Your task to perform on an android device: Open calendar and show me the third week of next month Image 0: 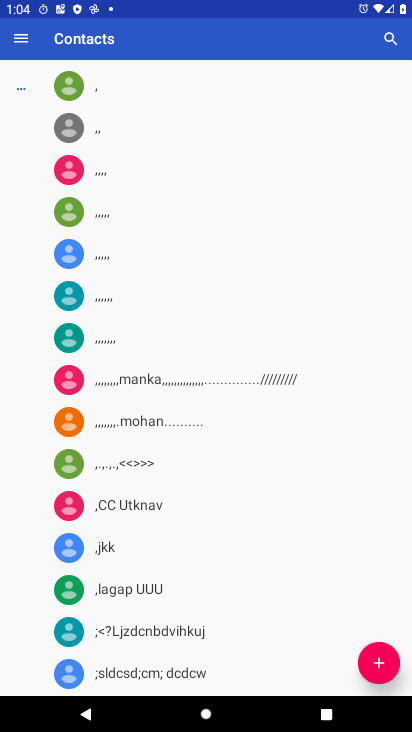
Step 0: press home button
Your task to perform on an android device: Open calendar and show me the third week of next month Image 1: 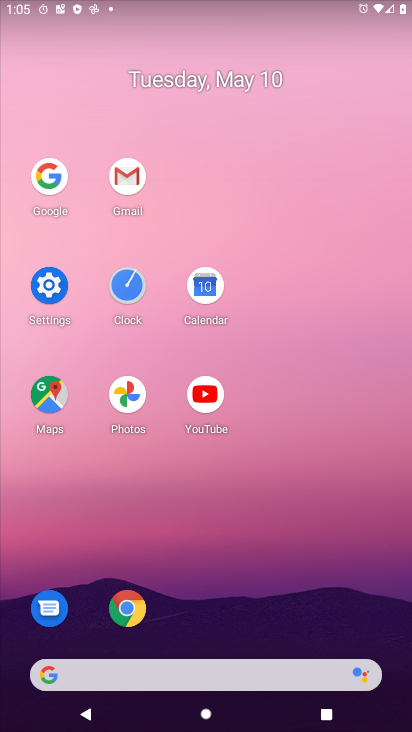
Step 1: click (196, 280)
Your task to perform on an android device: Open calendar and show me the third week of next month Image 2: 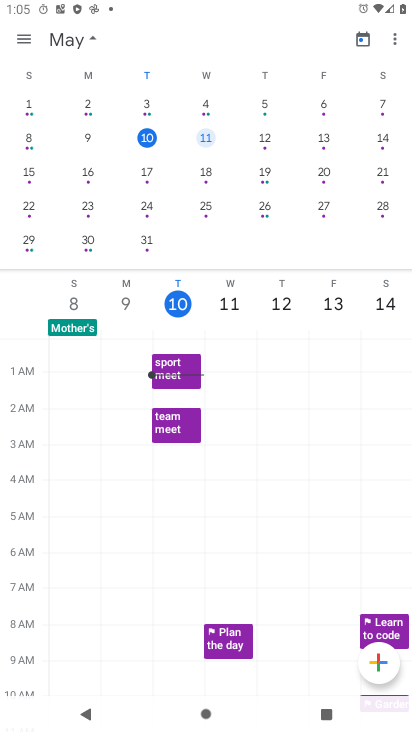
Step 2: click (78, 35)
Your task to perform on an android device: Open calendar and show me the third week of next month Image 3: 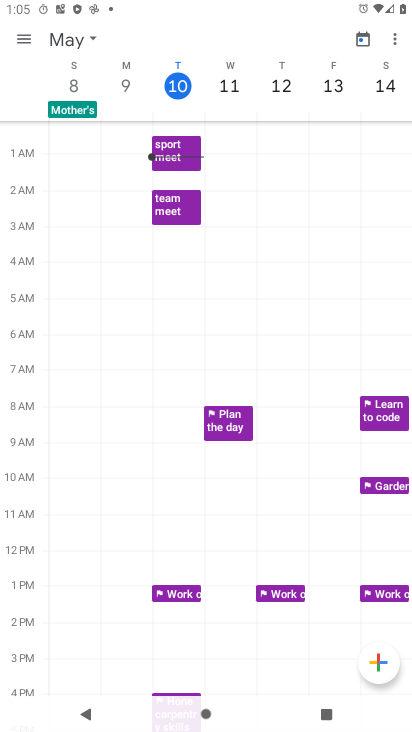
Step 3: click (87, 37)
Your task to perform on an android device: Open calendar and show me the third week of next month Image 4: 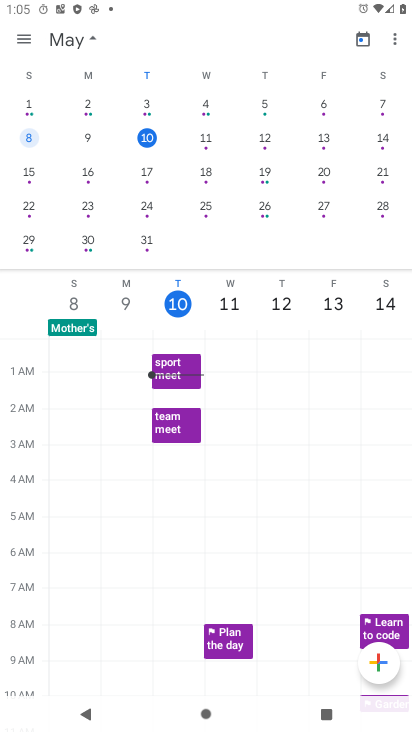
Step 4: drag from (352, 158) to (11, 196)
Your task to perform on an android device: Open calendar and show me the third week of next month Image 5: 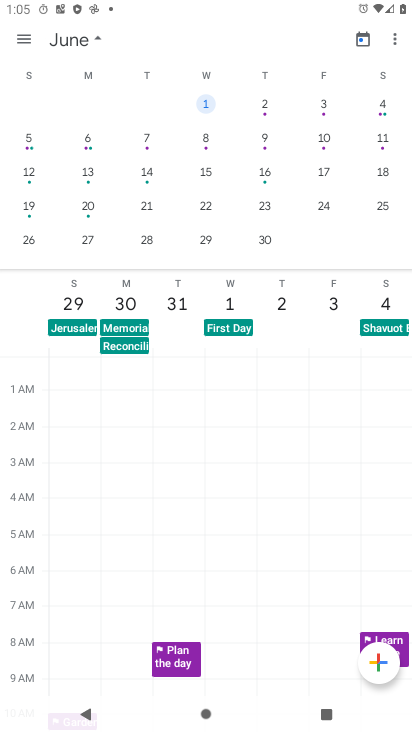
Step 5: click (29, 35)
Your task to perform on an android device: Open calendar and show me the third week of next month Image 6: 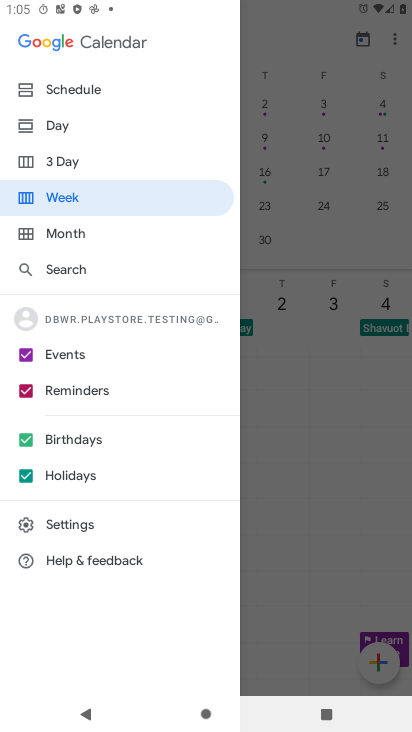
Step 6: click (81, 195)
Your task to perform on an android device: Open calendar and show me the third week of next month Image 7: 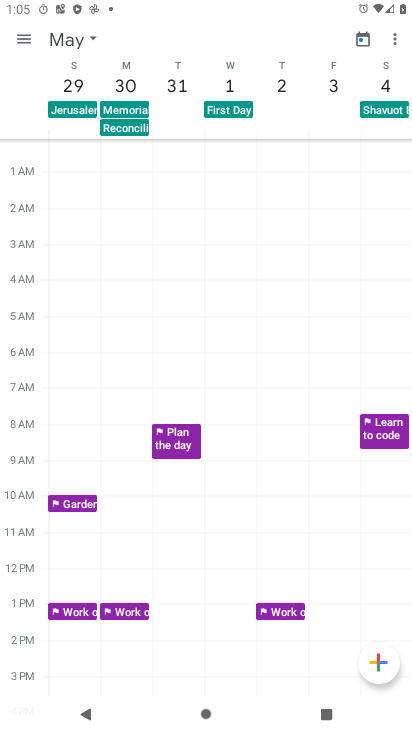
Step 7: task complete